Your task to perform on an android device: What is the news today? Image 0: 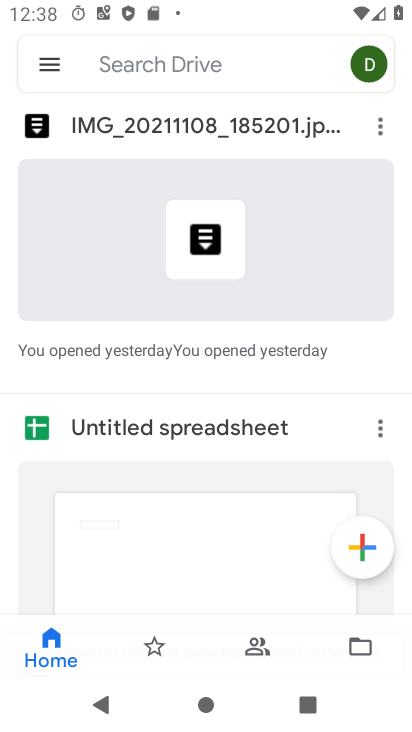
Step 0: press home button
Your task to perform on an android device: What is the news today? Image 1: 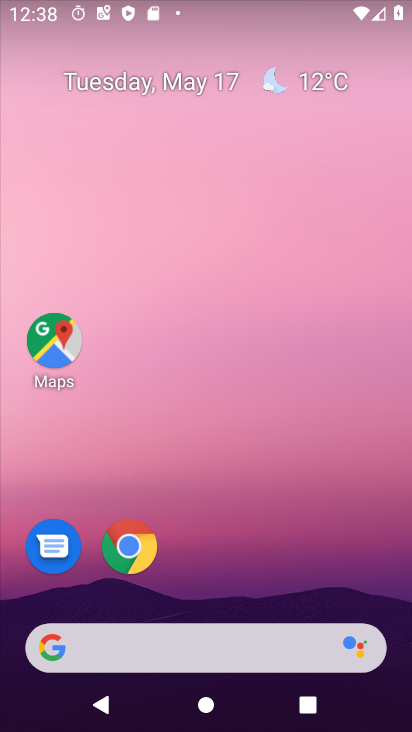
Step 1: click (60, 644)
Your task to perform on an android device: What is the news today? Image 2: 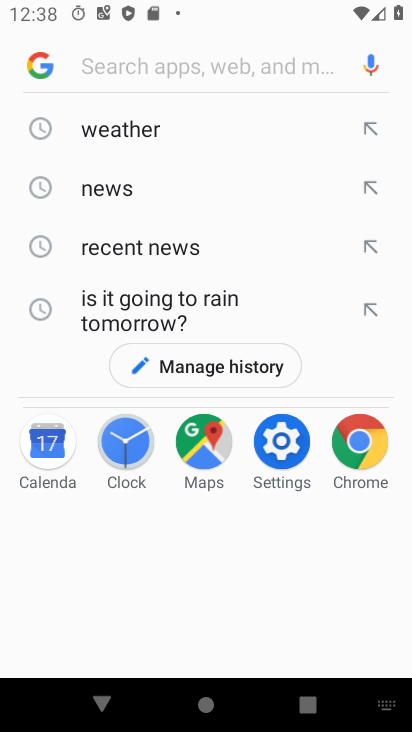
Step 2: click (120, 196)
Your task to perform on an android device: What is the news today? Image 3: 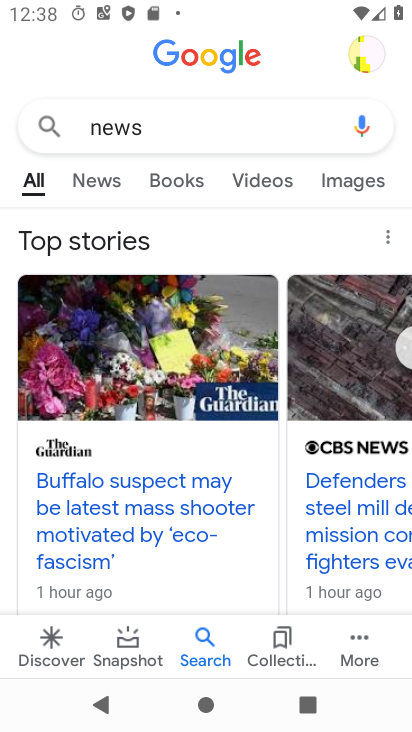
Step 3: click (111, 183)
Your task to perform on an android device: What is the news today? Image 4: 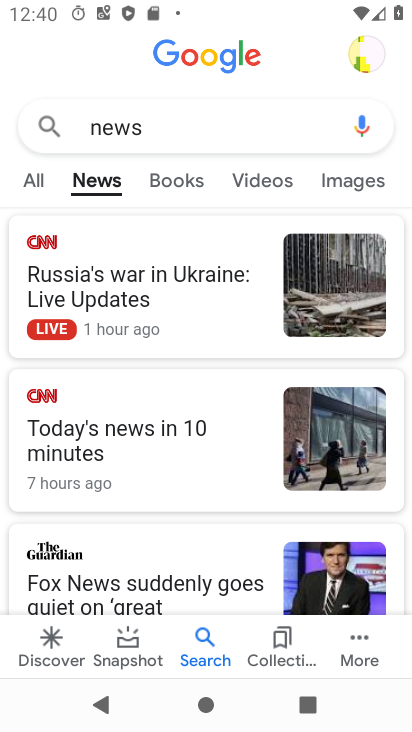
Step 4: task complete